Your task to perform on an android device: Search for pizza restaurants on Maps Image 0: 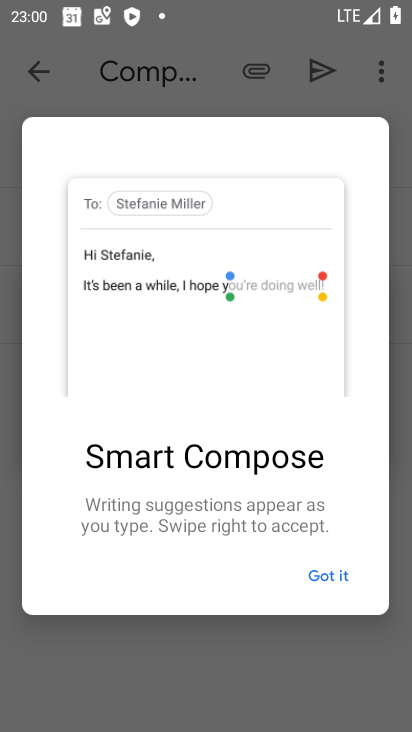
Step 0: press home button
Your task to perform on an android device: Search for pizza restaurants on Maps Image 1: 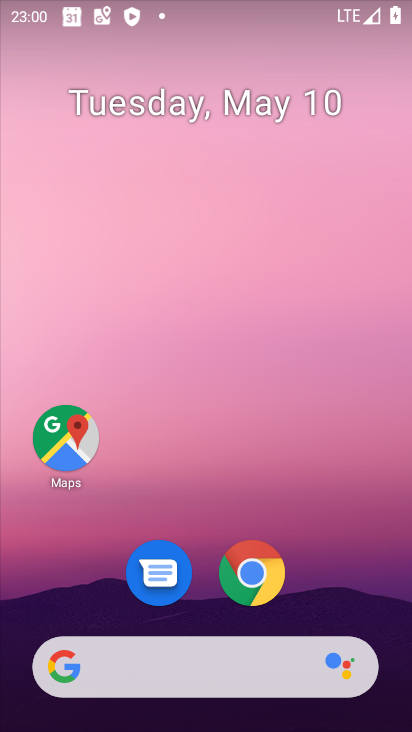
Step 1: click (36, 463)
Your task to perform on an android device: Search for pizza restaurants on Maps Image 2: 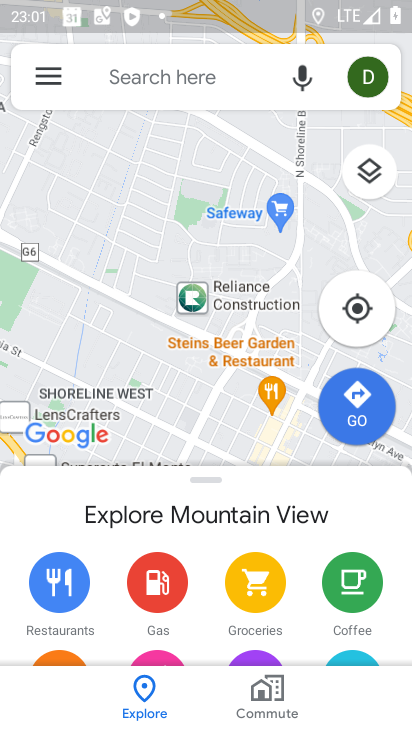
Step 2: click (63, 452)
Your task to perform on an android device: Search for pizza restaurants on Maps Image 3: 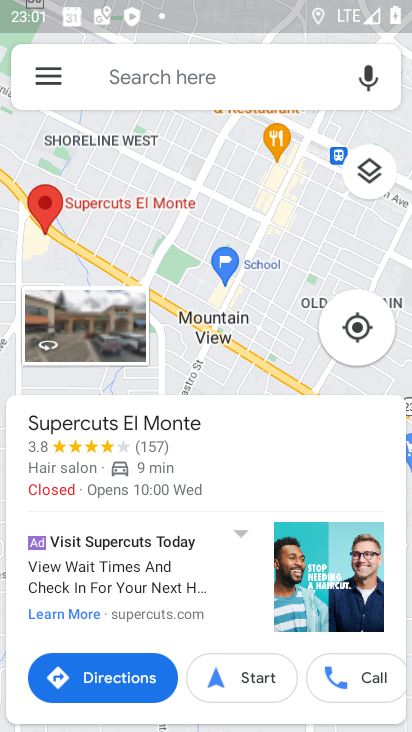
Step 3: click (117, 78)
Your task to perform on an android device: Search for pizza restaurants on Maps Image 4: 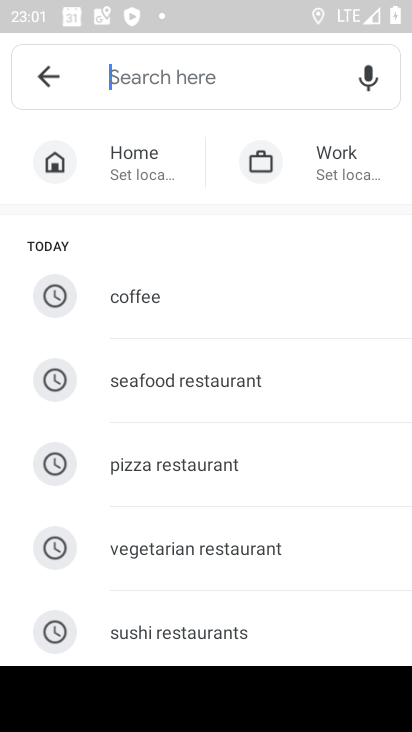
Step 4: click (175, 468)
Your task to perform on an android device: Search for pizza restaurants on Maps Image 5: 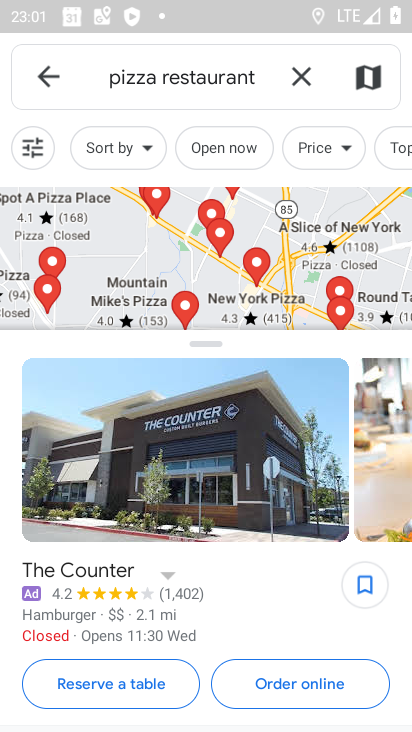
Step 5: task complete